Your task to perform on an android device: What's the weather going to be tomorrow? Image 0: 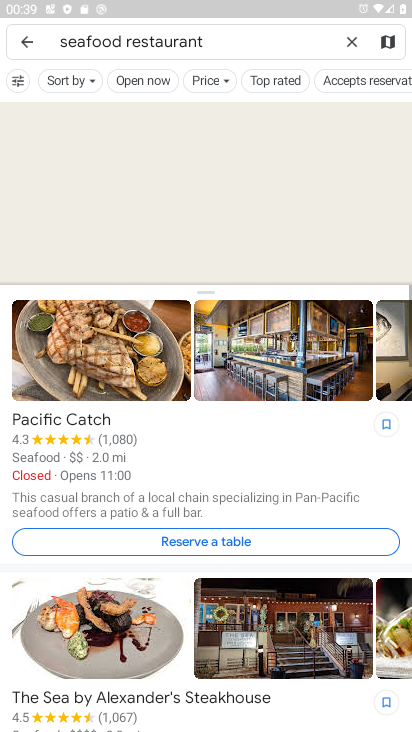
Step 0: press home button
Your task to perform on an android device: What's the weather going to be tomorrow? Image 1: 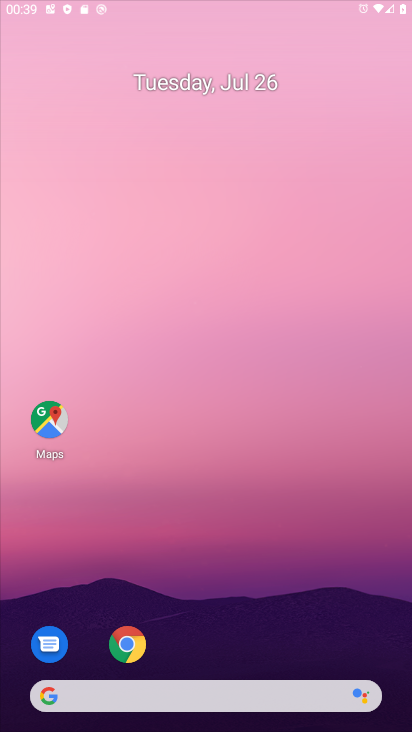
Step 1: drag from (273, 609) to (172, 87)
Your task to perform on an android device: What's the weather going to be tomorrow? Image 2: 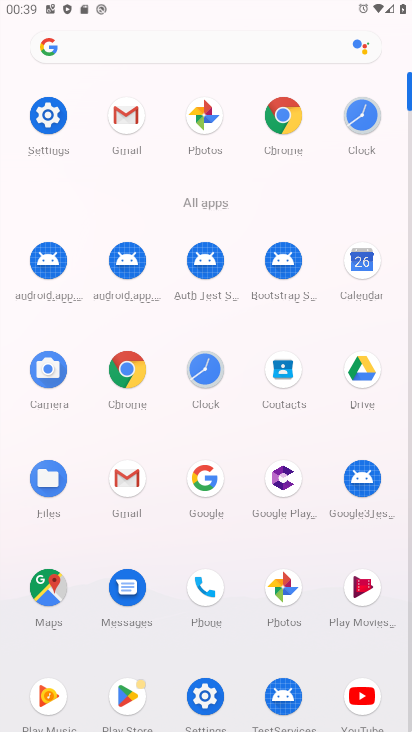
Step 2: click (282, 108)
Your task to perform on an android device: What's the weather going to be tomorrow? Image 3: 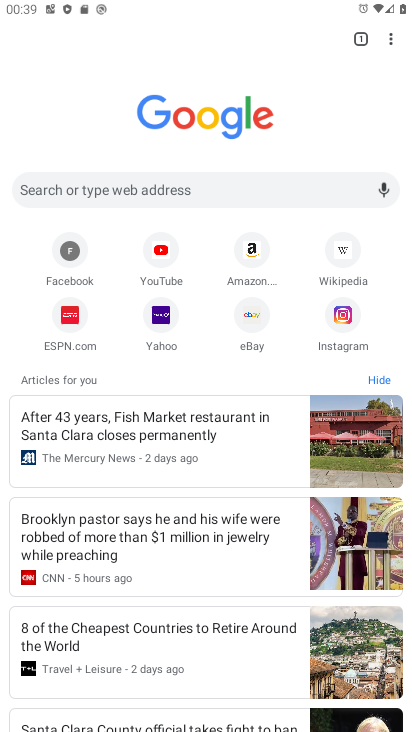
Step 3: click (266, 179)
Your task to perform on an android device: What's the weather going to be tomorrow? Image 4: 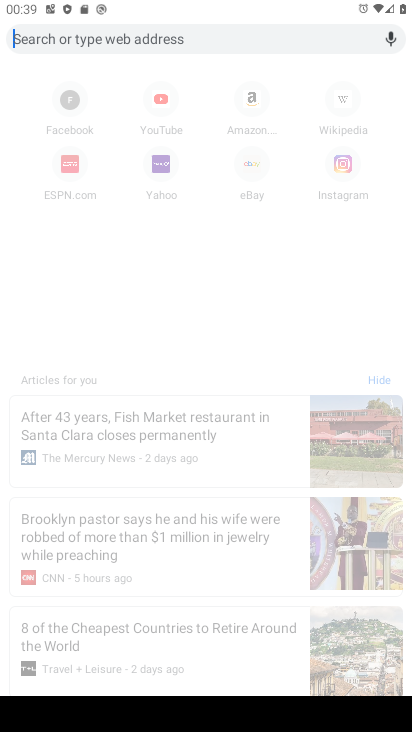
Step 4: type "What's the weather going to be tomorrow "
Your task to perform on an android device: What's the weather going to be tomorrow? Image 5: 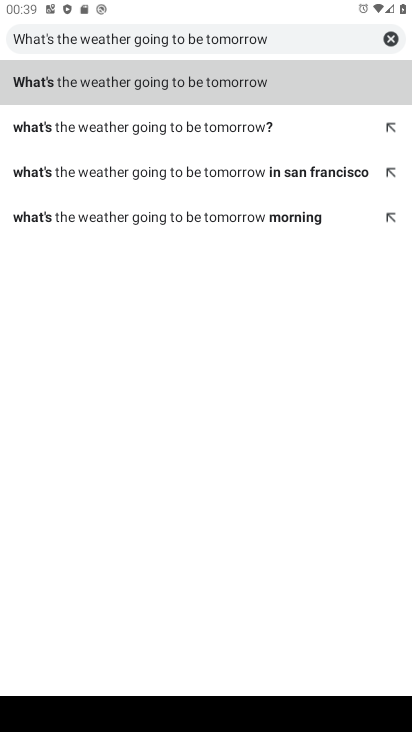
Step 5: click (207, 82)
Your task to perform on an android device: What's the weather going to be tomorrow? Image 6: 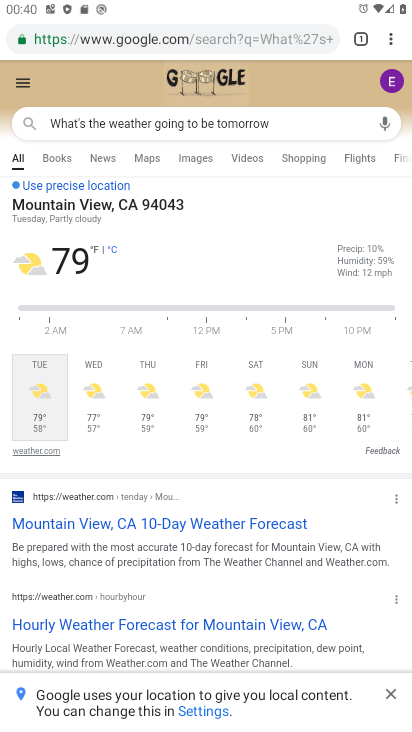
Step 6: task complete